Your task to perform on an android device: Open settings Image 0: 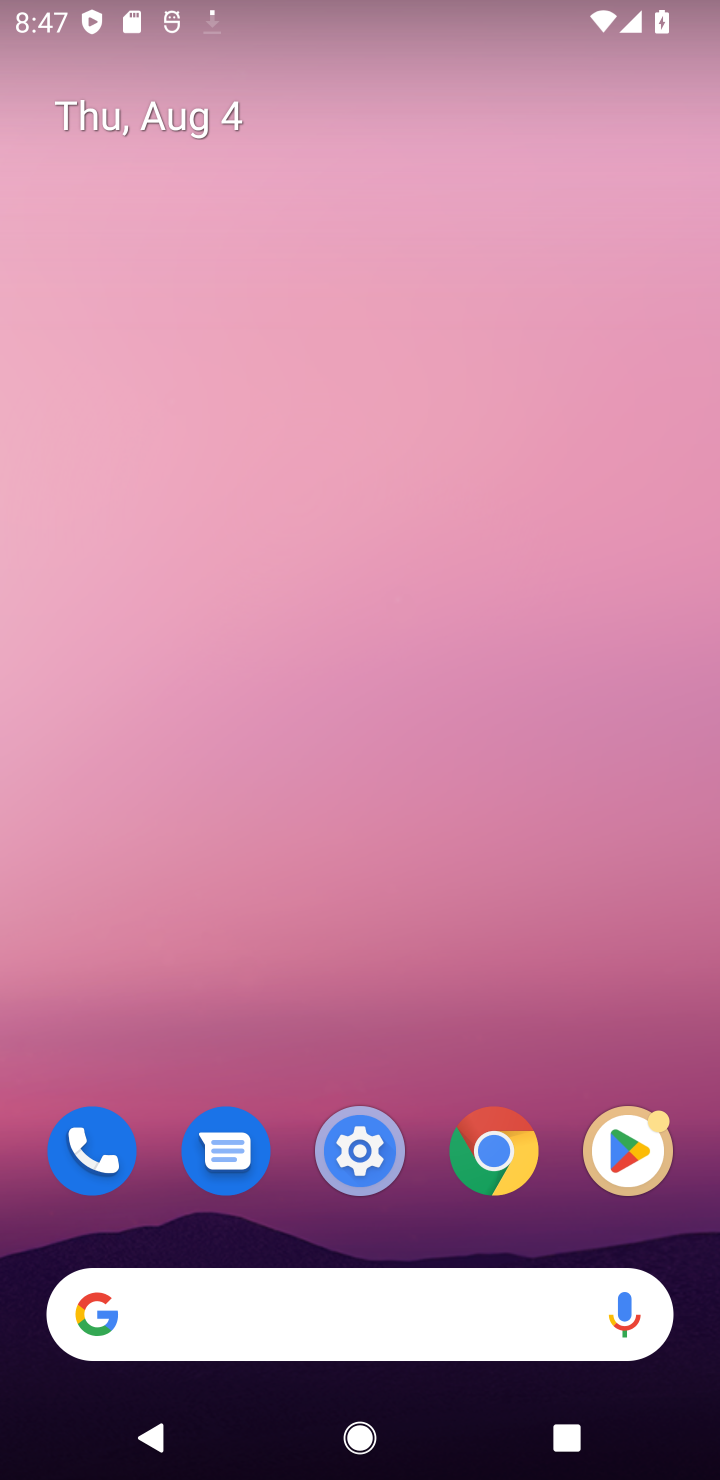
Step 0: click (381, 1164)
Your task to perform on an android device: Open settings Image 1: 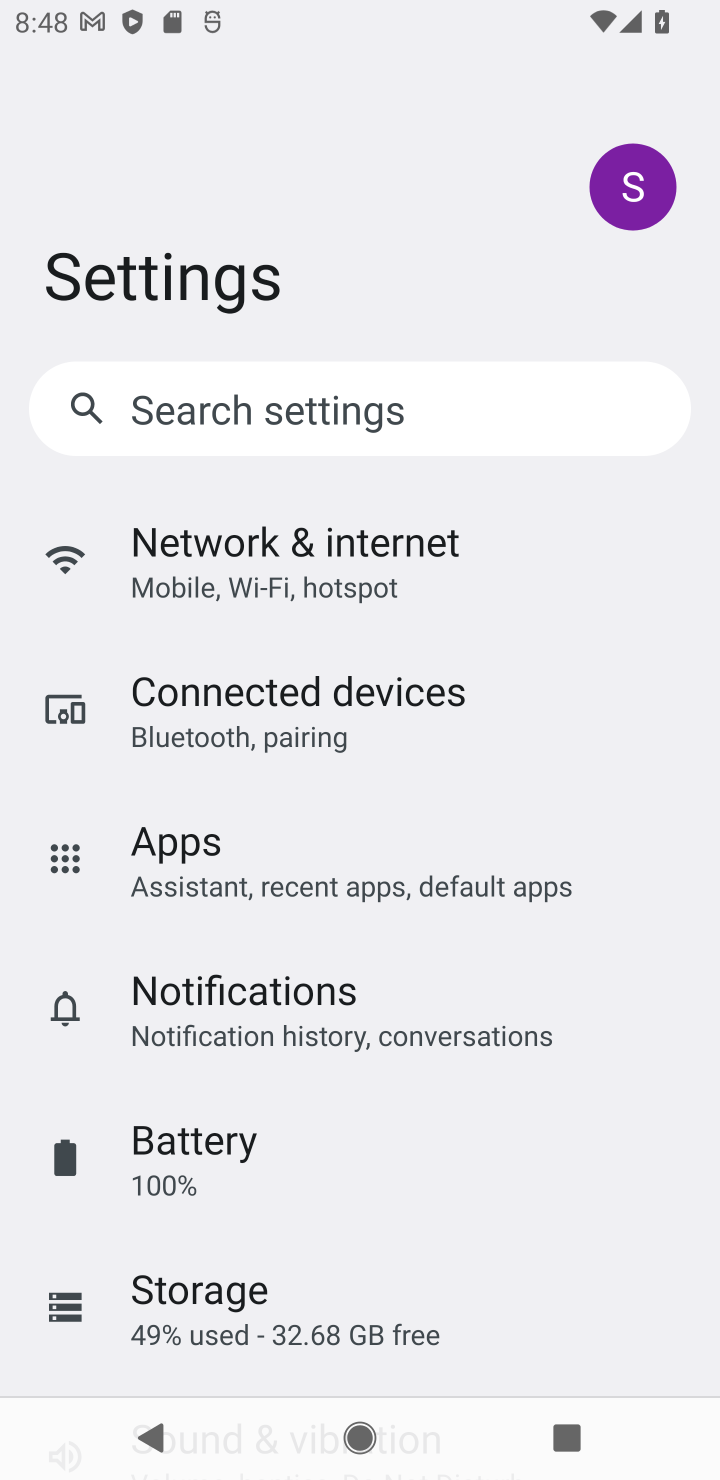
Step 1: task complete